Your task to perform on an android device: Is it going to rain this weekend? Image 0: 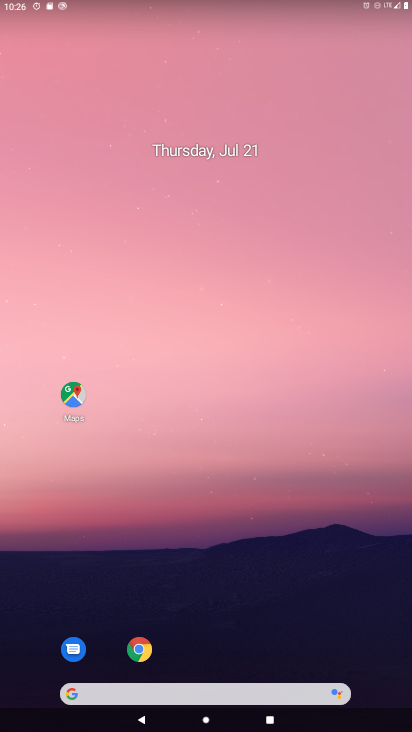
Step 0: drag from (399, 568) to (210, 29)
Your task to perform on an android device: Is it going to rain this weekend? Image 1: 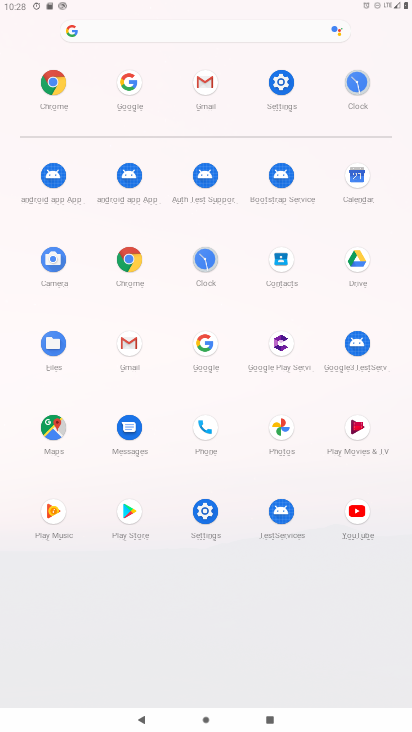
Step 1: click (214, 332)
Your task to perform on an android device: Is it going to rain this weekend? Image 2: 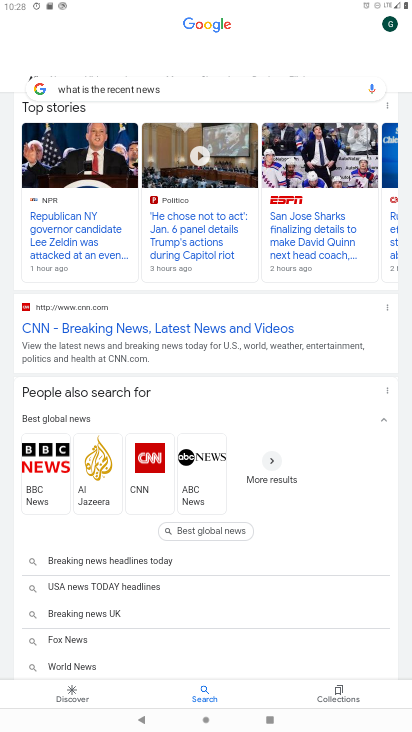
Step 2: press back button
Your task to perform on an android device: Is it going to rain this weekend? Image 3: 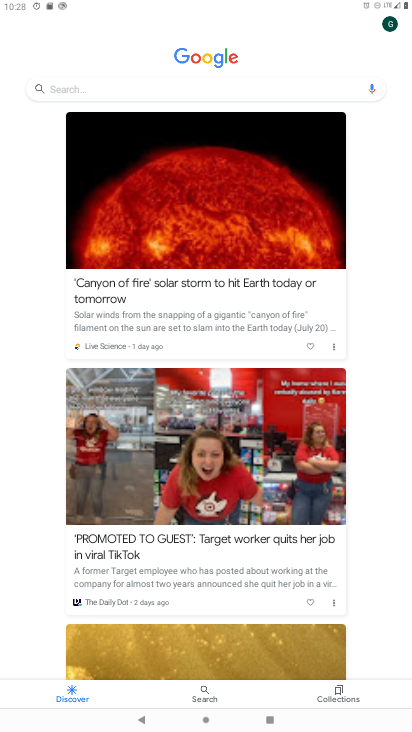
Step 3: click (98, 80)
Your task to perform on an android device: Is it going to rain this weekend? Image 4: 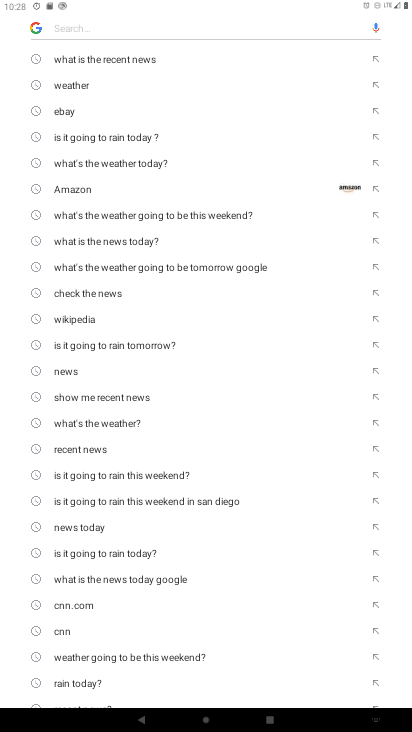
Step 4: type "Is it going to rain this weekend?"
Your task to perform on an android device: Is it going to rain this weekend? Image 5: 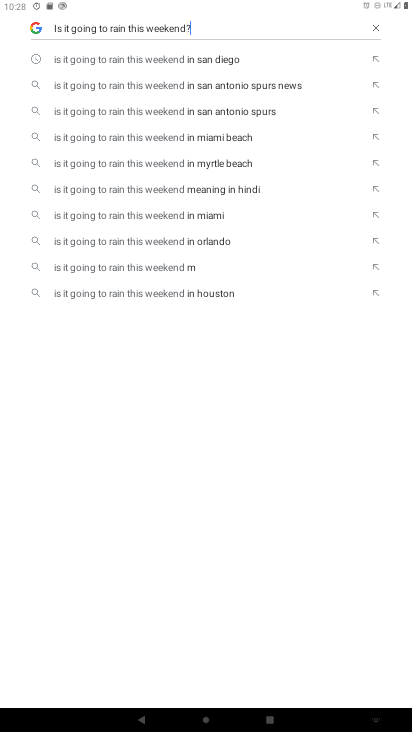
Step 5: click (162, 265)
Your task to perform on an android device: Is it going to rain this weekend? Image 6: 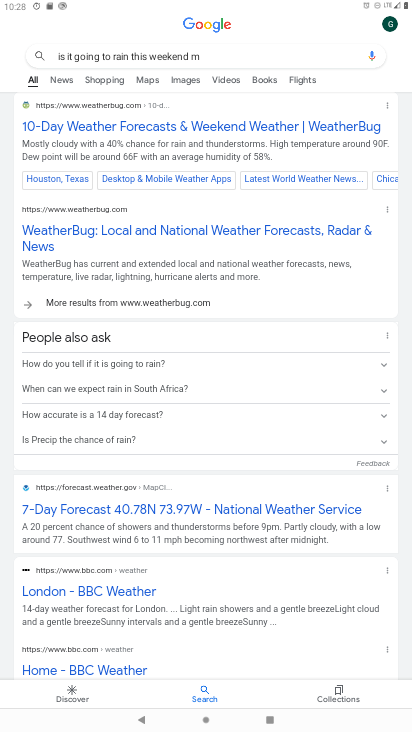
Step 6: task complete